Your task to perform on an android device: choose inbox layout in the gmail app Image 0: 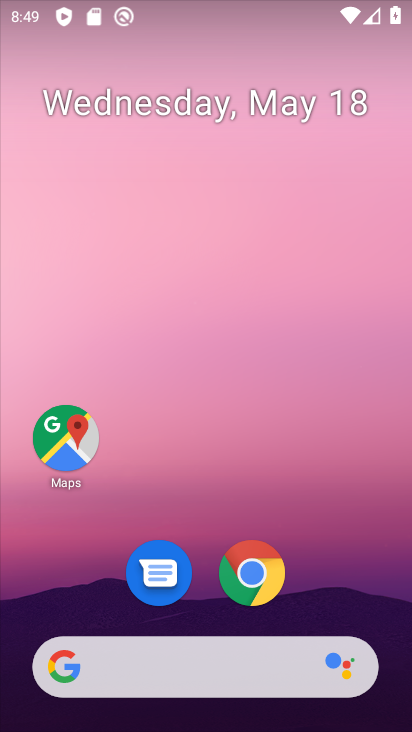
Step 0: drag from (160, 674) to (292, 129)
Your task to perform on an android device: choose inbox layout in the gmail app Image 1: 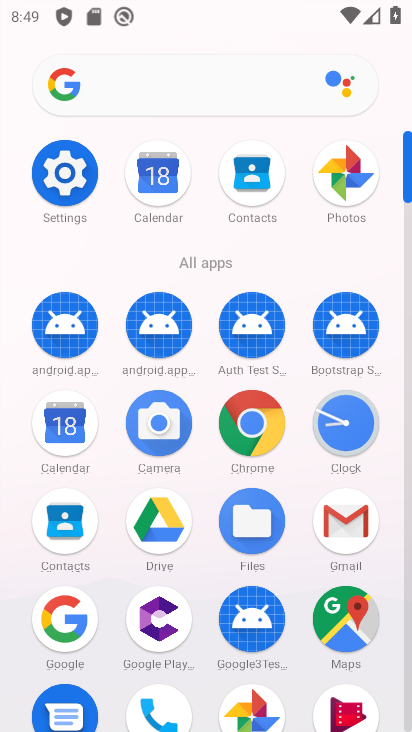
Step 1: click (348, 523)
Your task to perform on an android device: choose inbox layout in the gmail app Image 2: 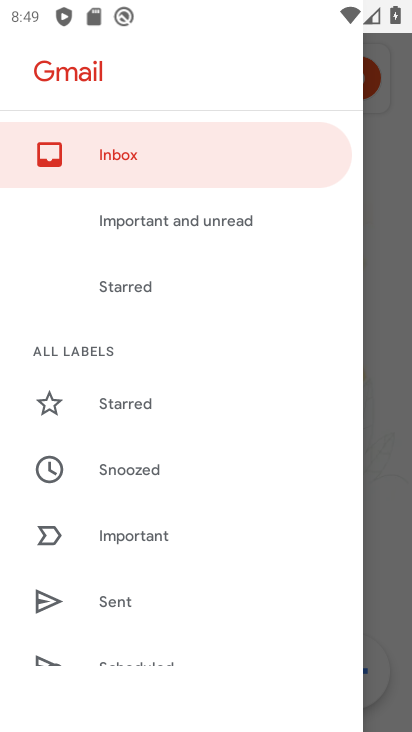
Step 2: drag from (143, 601) to (235, 16)
Your task to perform on an android device: choose inbox layout in the gmail app Image 3: 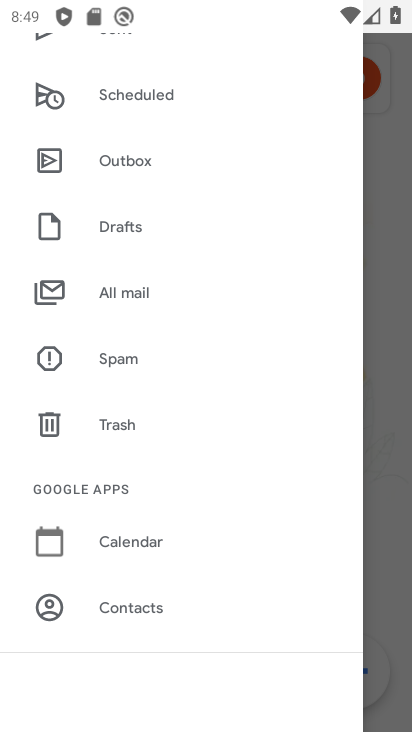
Step 3: drag from (172, 610) to (219, 30)
Your task to perform on an android device: choose inbox layout in the gmail app Image 4: 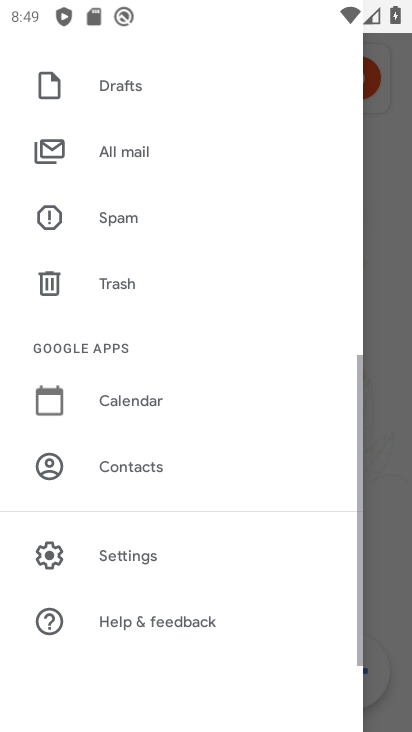
Step 4: click (145, 559)
Your task to perform on an android device: choose inbox layout in the gmail app Image 5: 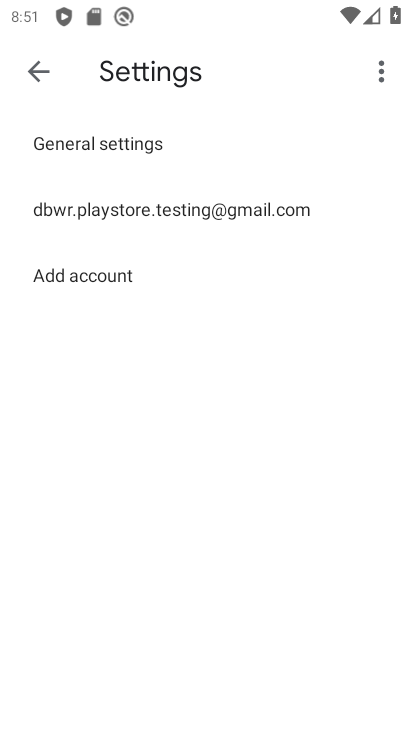
Step 5: click (226, 200)
Your task to perform on an android device: choose inbox layout in the gmail app Image 6: 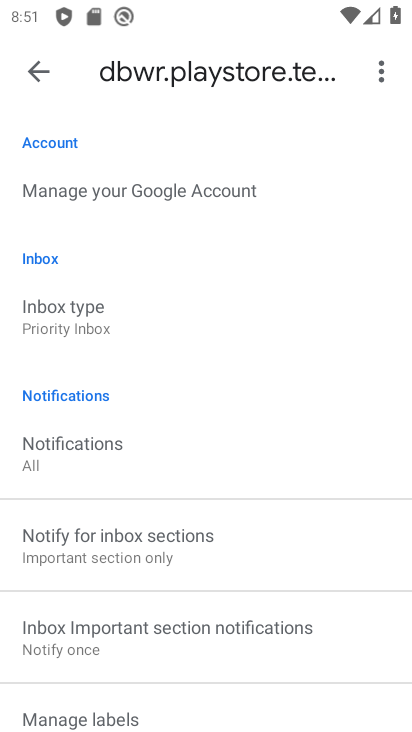
Step 6: click (97, 323)
Your task to perform on an android device: choose inbox layout in the gmail app Image 7: 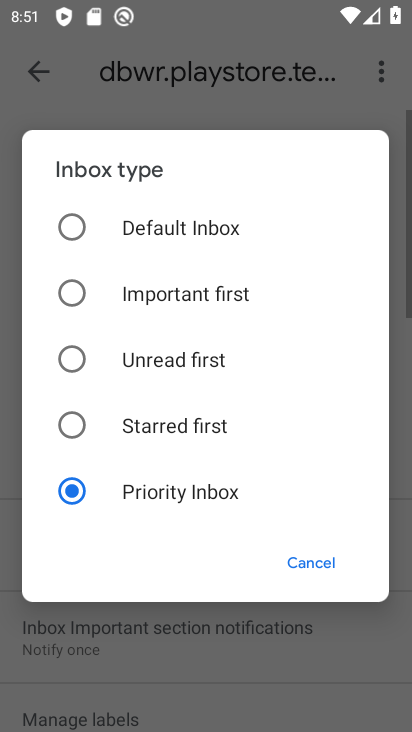
Step 7: click (223, 228)
Your task to perform on an android device: choose inbox layout in the gmail app Image 8: 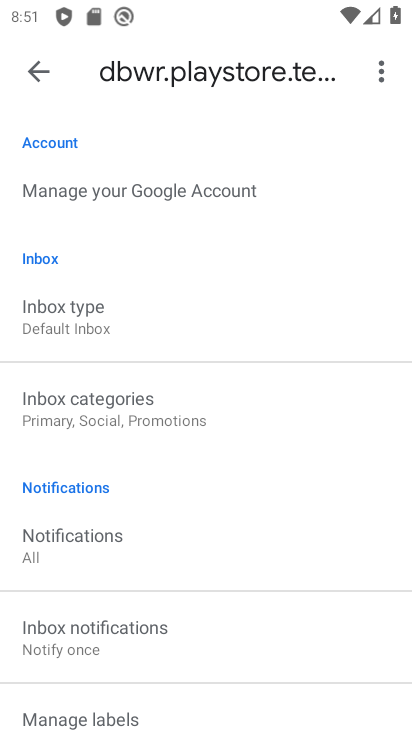
Step 8: task complete